Your task to perform on an android device: change your default location settings in chrome Image 0: 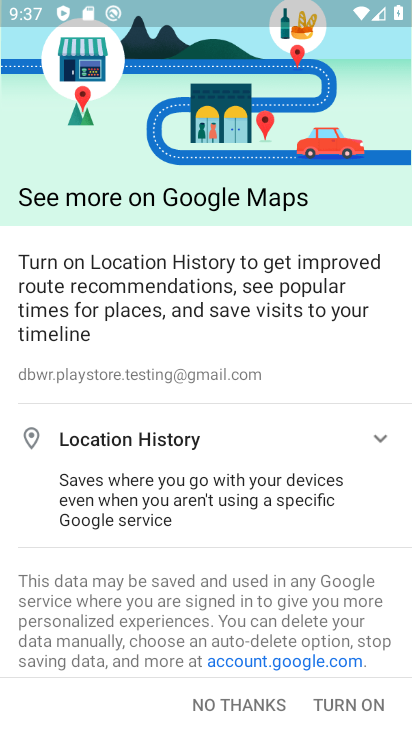
Step 0: press back button
Your task to perform on an android device: change your default location settings in chrome Image 1: 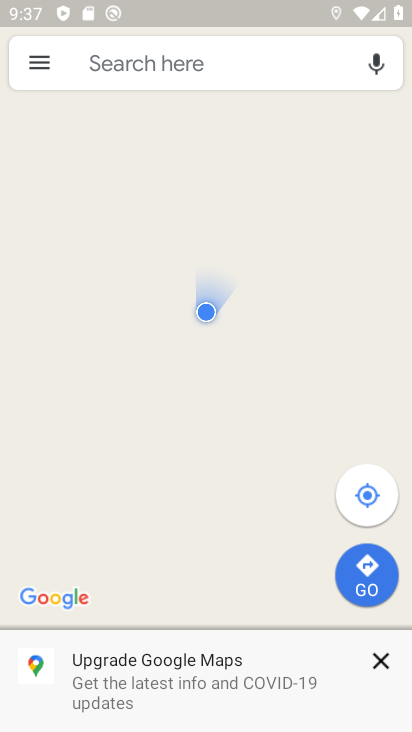
Step 1: press back button
Your task to perform on an android device: change your default location settings in chrome Image 2: 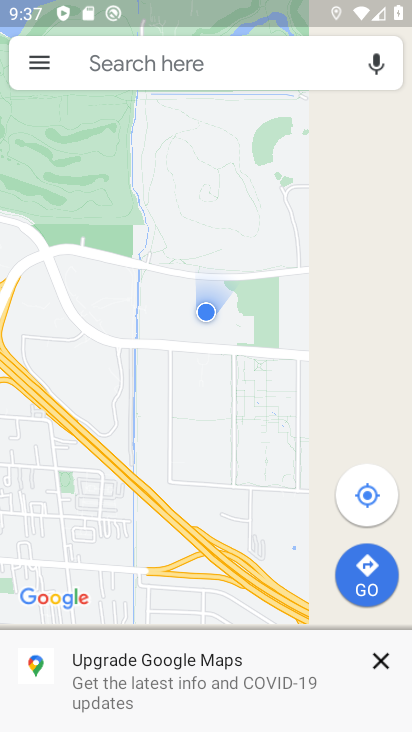
Step 2: press home button
Your task to perform on an android device: change your default location settings in chrome Image 3: 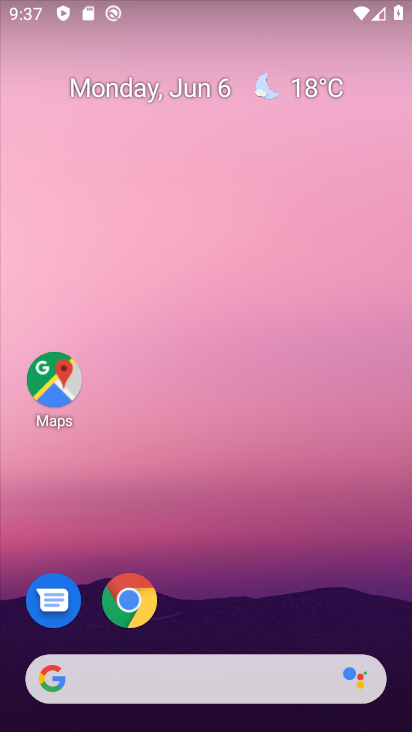
Step 3: drag from (250, 562) to (225, 9)
Your task to perform on an android device: change your default location settings in chrome Image 4: 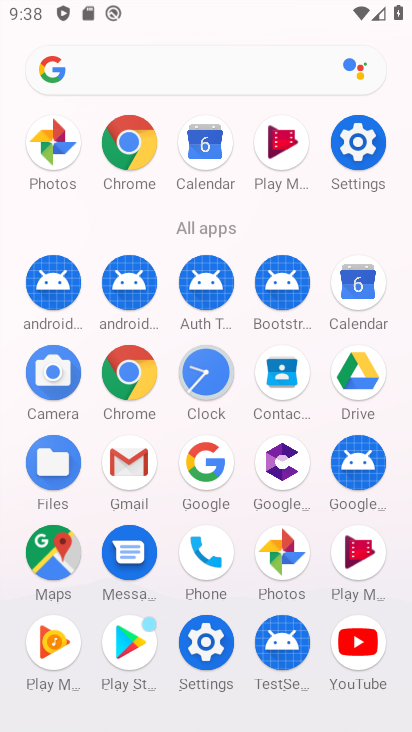
Step 4: click (128, 137)
Your task to perform on an android device: change your default location settings in chrome Image 5: 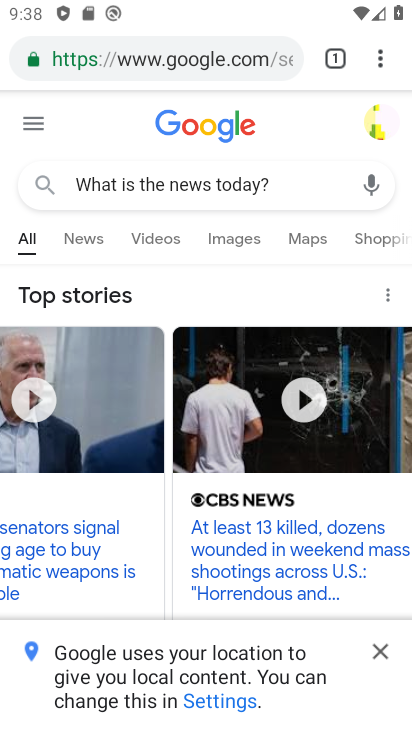
Step 5: drag from (376, 54) to (195, 651)
Your task to perform on an android device: change your default location settings in chrome Image 6: 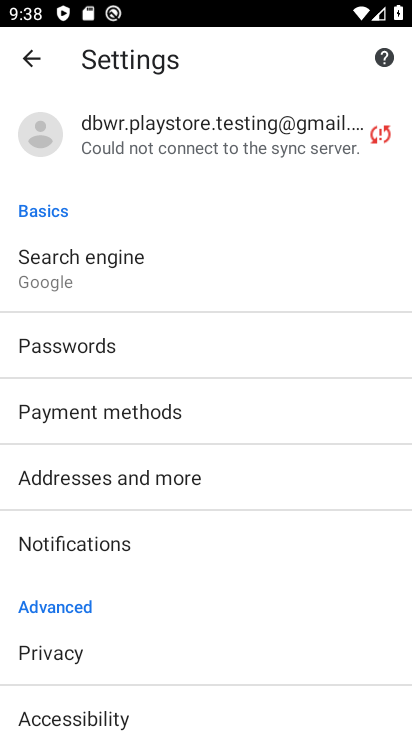
Step 6: drag from (204, 602) to (255, 179)
Your task to perform on an android device: change your default location settings in chrome Image 7: 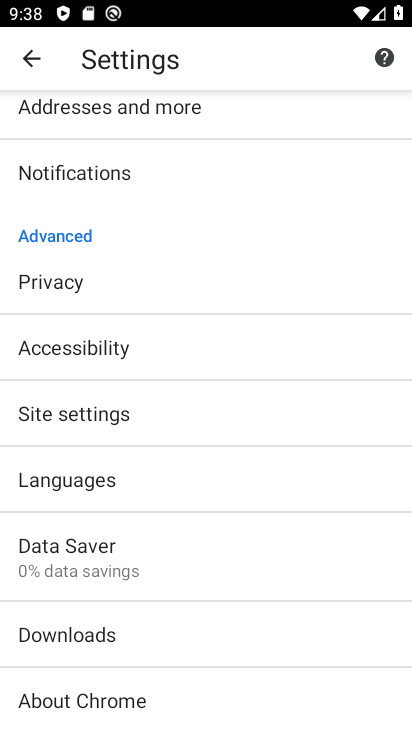
Step 7: drag from (220, 606) to (273, 166)
Your task to perform on an android device: change your default location settings in chrome Image 8: 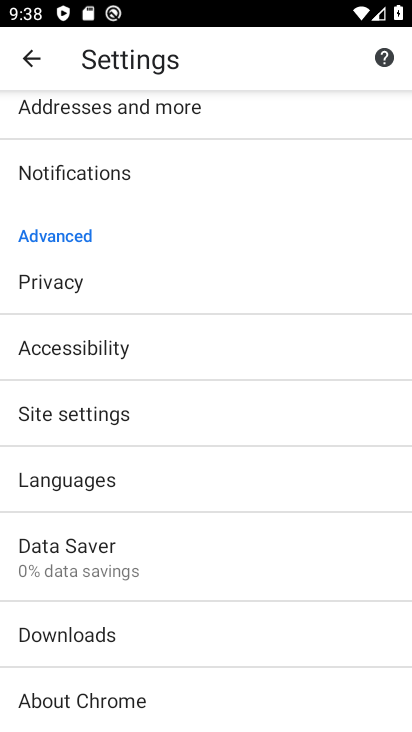
Step 8: click (153, 404)
Your task to perform on an android device: change your default location settings in chrome Image 9: 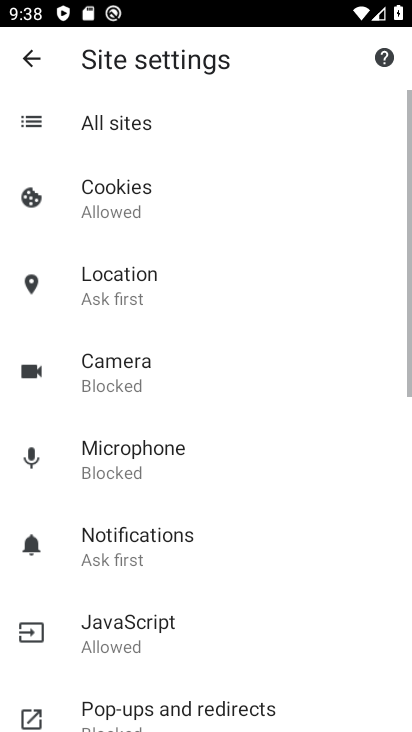
Step 9: click (148, 277)
Your task to perform on an android device: change your default location settings in chrome Image 10: 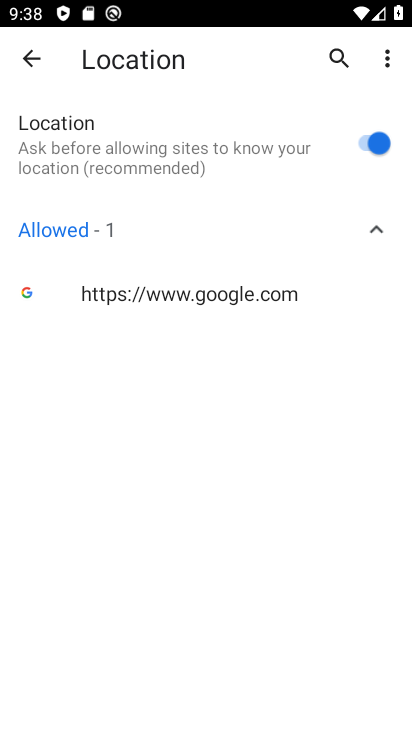
Step 10: click (368, 142)
Your task to perform on an android device: change your default location settings in chrome Image 11: 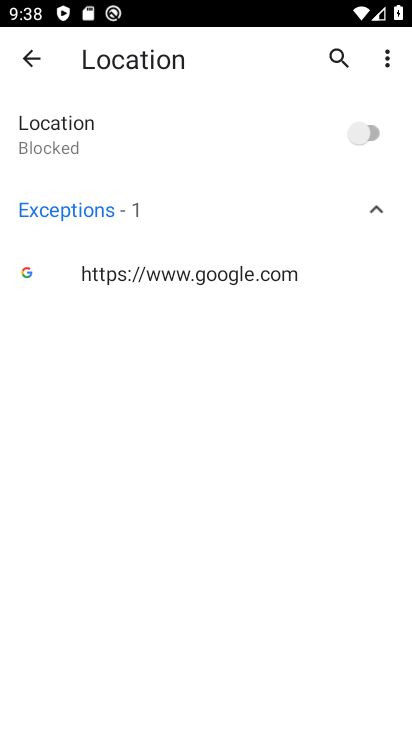
Step 11: task complete